Your task to perform on an android device: Go to battery settings Image 0: 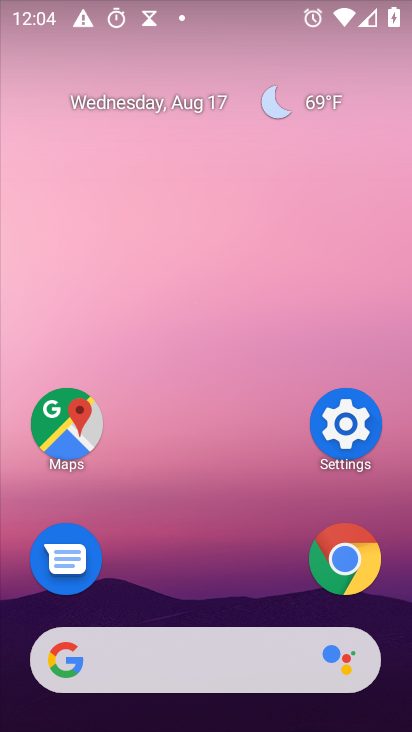
Step 0: click (342, 425)
Your task to perform on an android device: Go to battery settings Image 1: 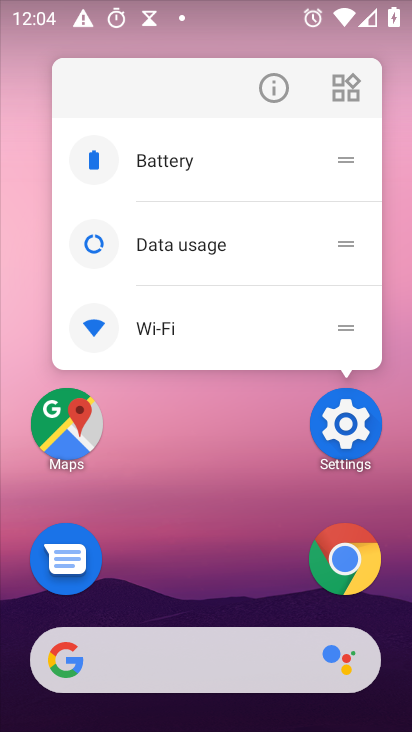
Step 1: click (342, 425)
Your task to perform on an android device: Go to battery settings Image 2: 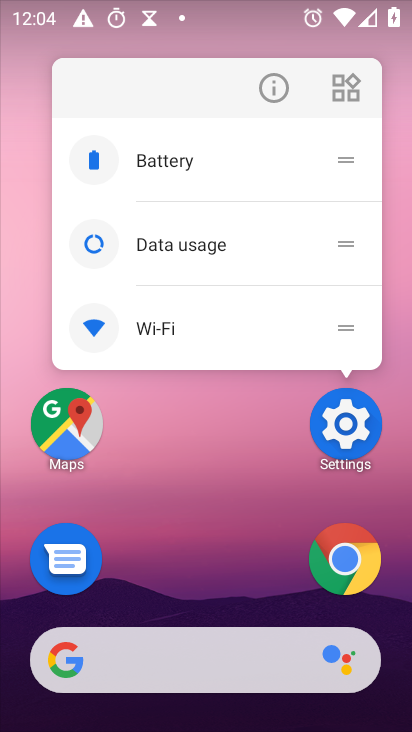
Step 2: click (352, 423)
Your task to perform on an android device: Go to battery settings Image 3: 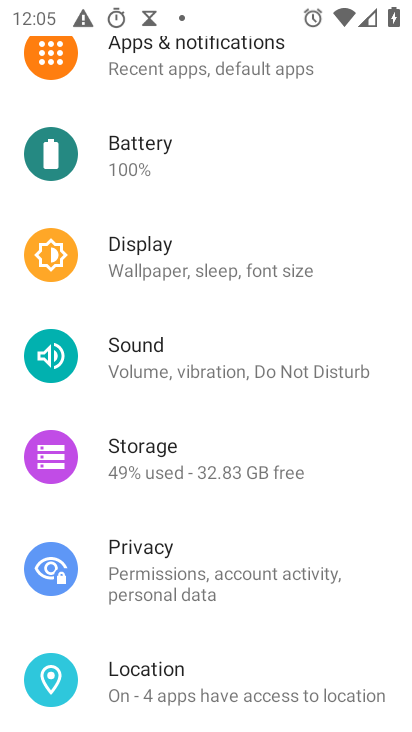
Step 3: click (123, 151)
Your task to perform on an android device: Go to battery settings Image 4: 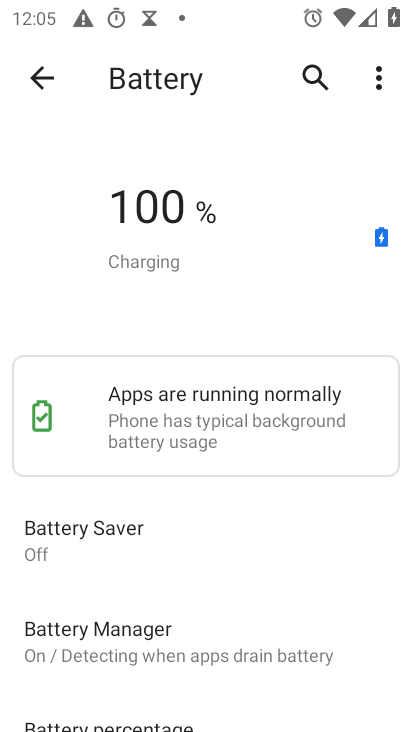
Step 4: task complete